Your task to perform on an android device: What's the weather? Image 0: 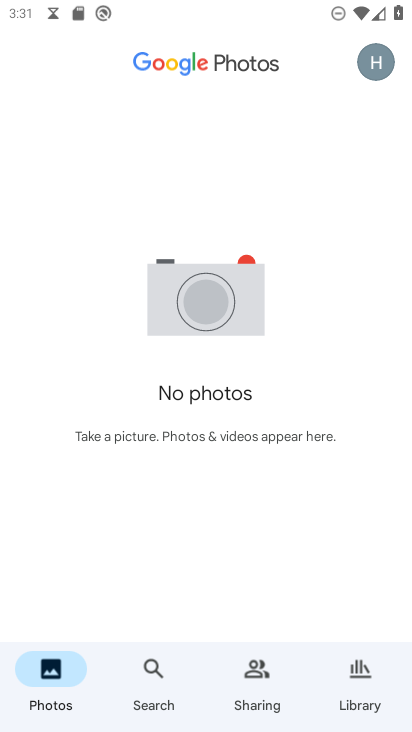
Step 0: press home button
Your task to perform on an android device: What's the weather? Image 1: 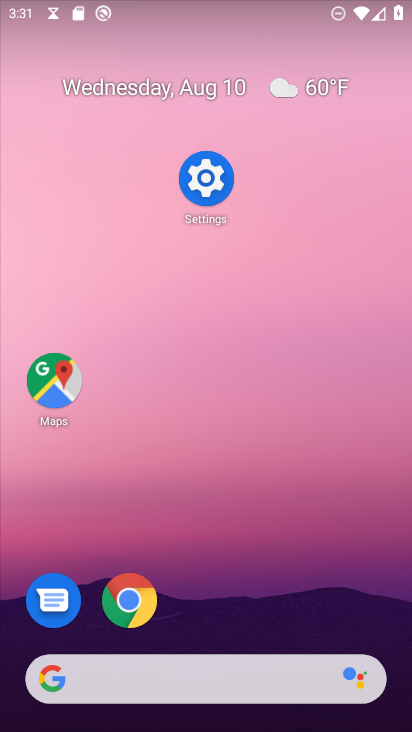
Step 1: click (47, 679)
Your task to perform on an android device: What's the weather? Image 2: 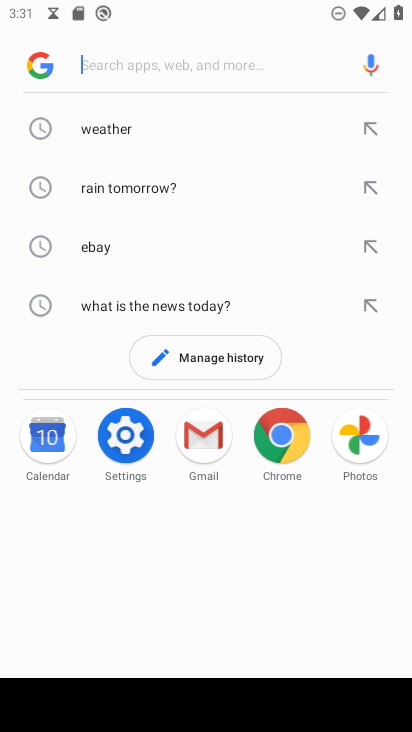
Step 2: type "weather?"
Your task to perform on an android device: What's the weather? Image 3: 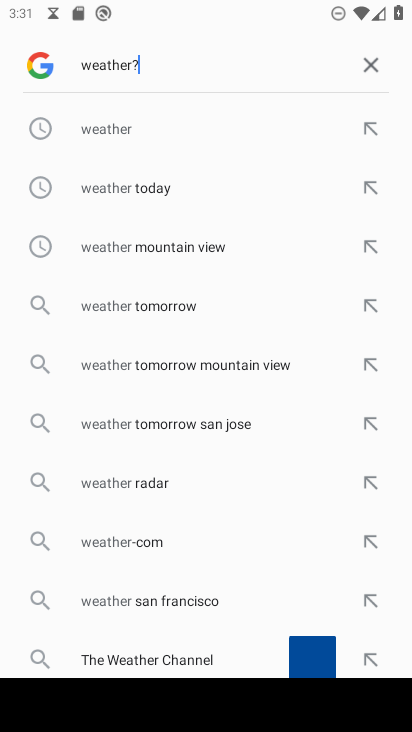
Step 3: press enter
Your task to perform on an android device: What's the weather? Image 4: 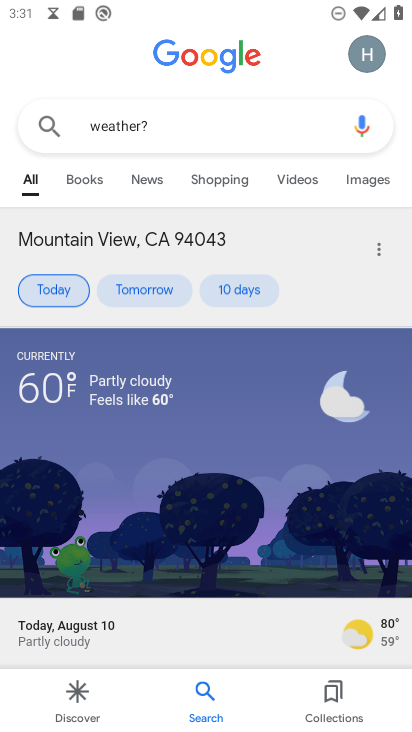
Step 4: task complete